Your task to perform on an android device: change text size in settings app Image 0: 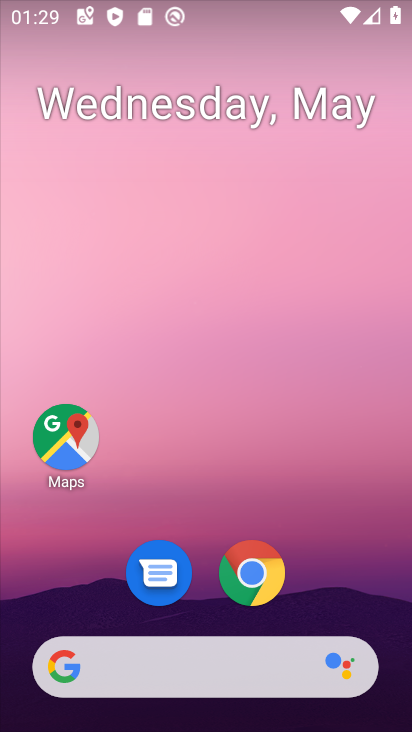
Step 0: drag from (342, 579) to (290, 26)
Your task to perform on an android device: change text size in settings app Image 1: 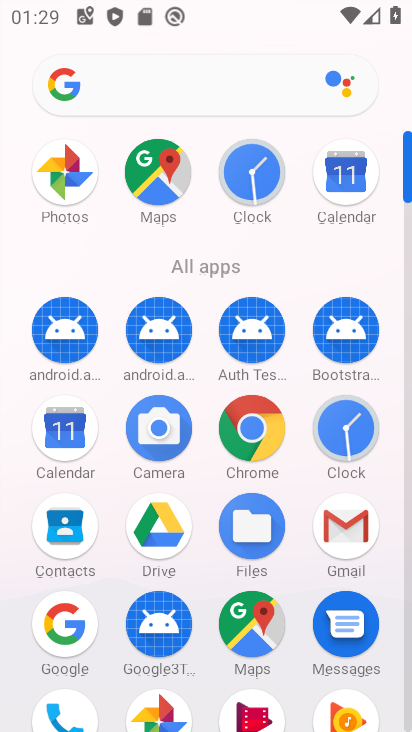
Step 1: drag from (298, 419) to (276, 229)
Your task to perform on an android device: change text size in settings app Image 2: 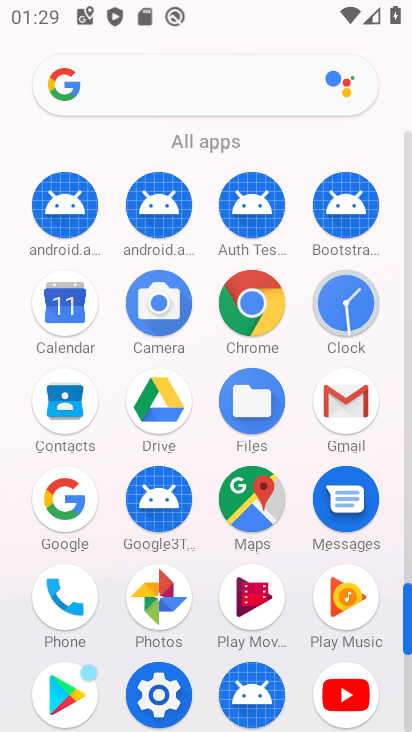
Step 2: click (161, 694)
Your task to perform on an android device: change text size in settings app Image 3: 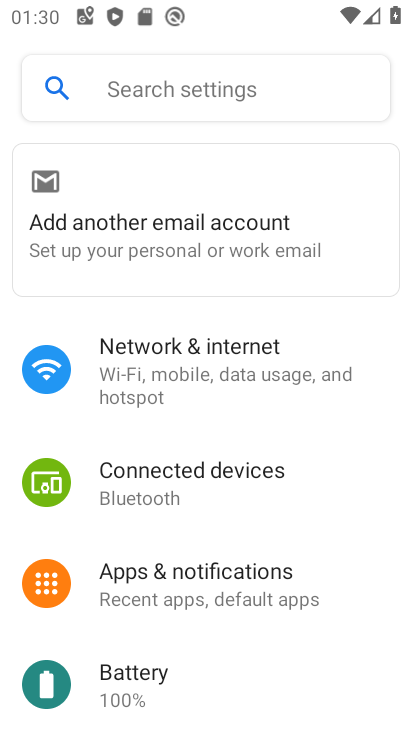
Step 3: drag from (215, 531) to (250, 401)
Your task to perform on an android device: change text size in settings app Image 4: 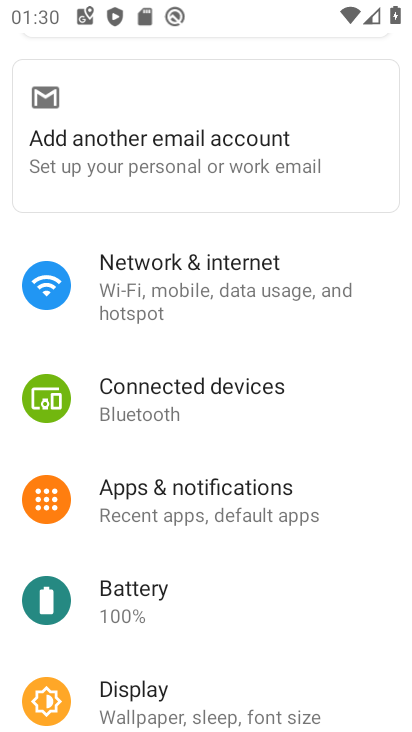
Step 4: drag from (159, 620) to (208, 448)
Your task to perform on an android device: change text size in settings app Image 5: 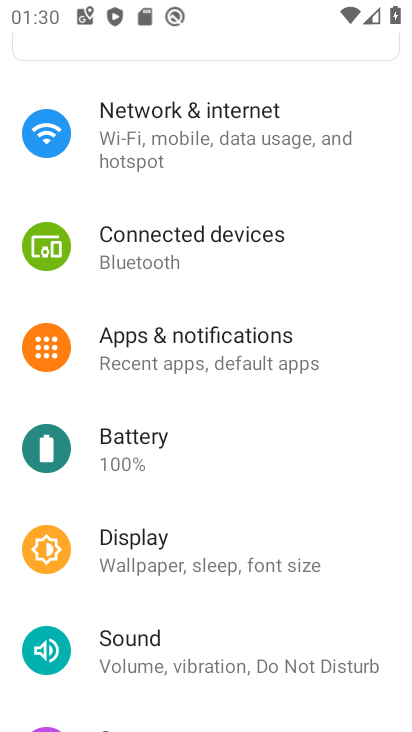
Step 5: drag from (171, 612) to (206, 470)
Your task to perform on an android device: change text size in settings app Image 6: 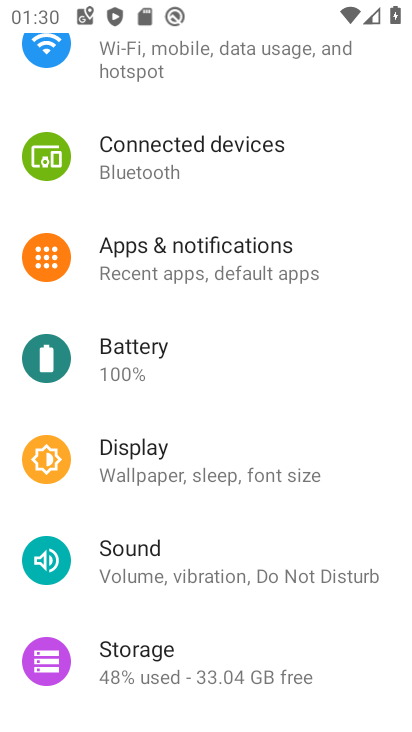
Step 6: drag from (187, 624) to (255, 476)
Your task to perform on an android device: change text size in settings app Image 7: 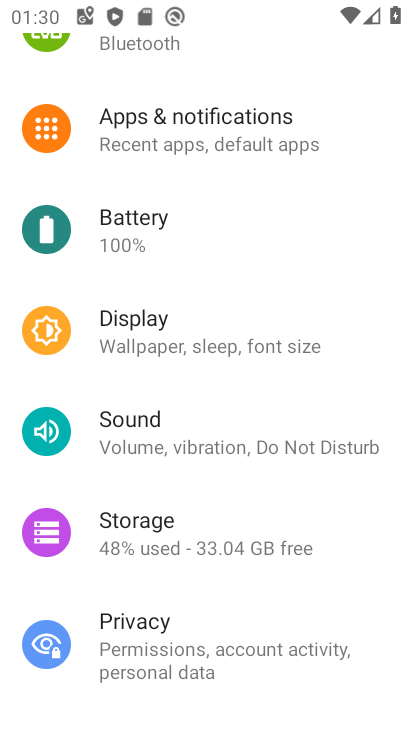
Step 7: drag from (197, 597) to (259, 410)
Your task to perform on an android device: change text size in settings app Image 8: 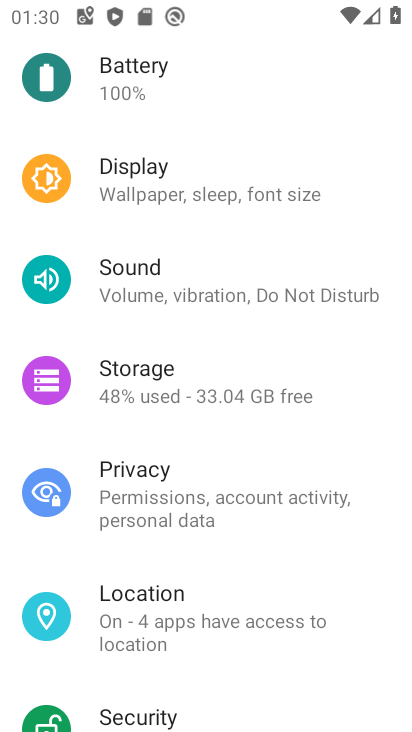
Step 8: drag from (155, 574) to (229, 418)
Your task to perform on an android device: change text size in settings app Image 9: 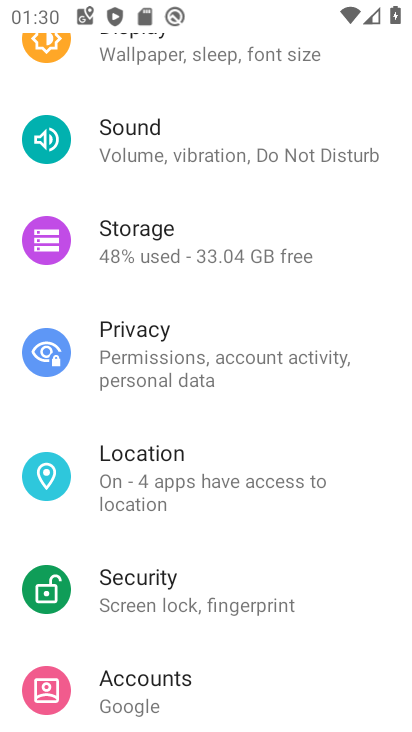
Step 9: drag from (166, 554) to (232, 417)
Your task to perform on an android device: change text size in settings app Image 10: 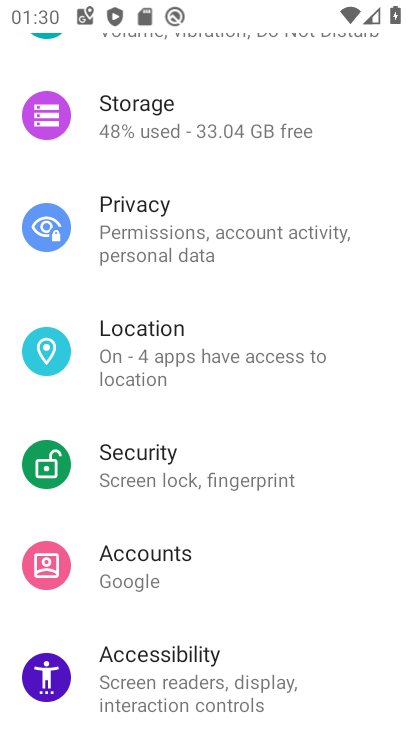
Step 10: drag from (118, 620) to (207, 471)
Your task to perform on an android device: change text size in settings app Image 11: 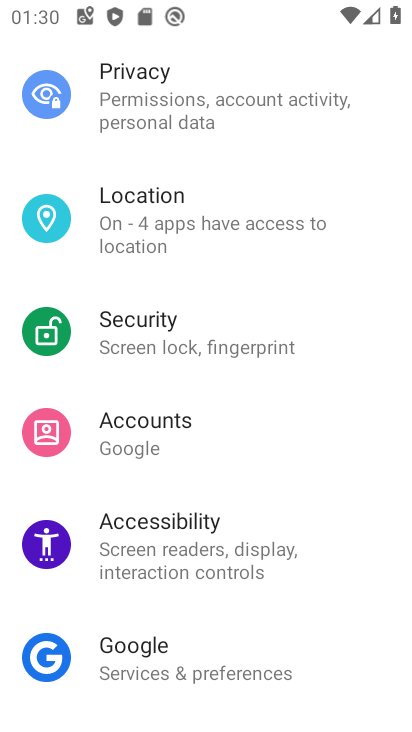
Step 11: click (169, 517)
Your task to perform on an android device: change text size in settings app Image 12: 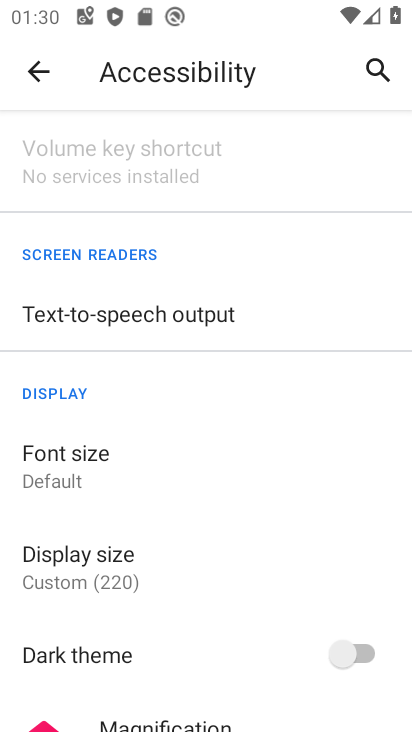
Step 12: click (93, 456)
Your task to perform on an android device: change text size in settings app Image 13: 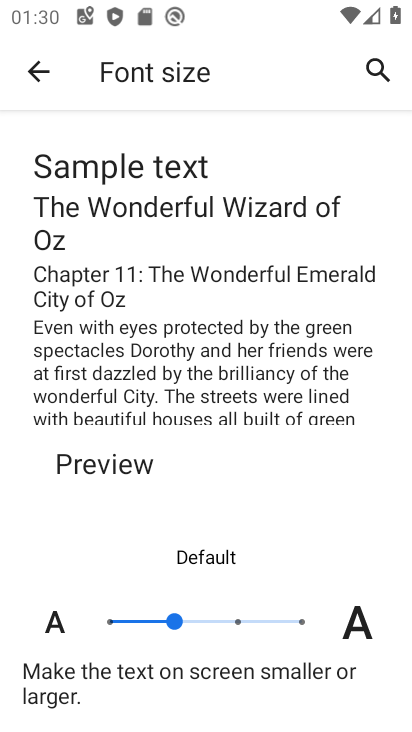
Step 13: click (229, 619)
Your task to perform on an android device: change text size in settings app Image 14: 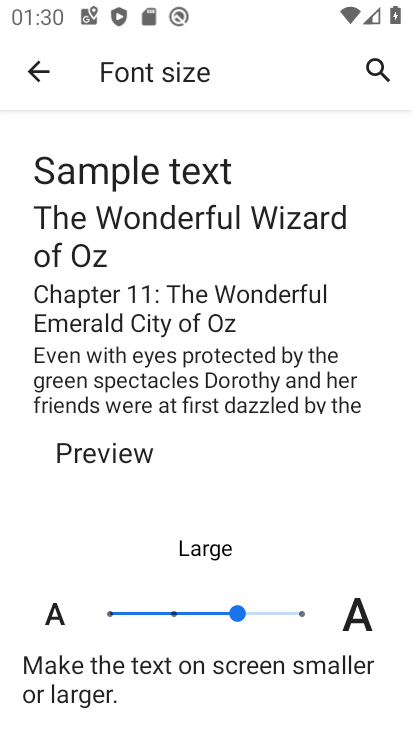
Step 14: task complete